Your task to perform on an android device: toggle data saver in the chrome app Image 0: 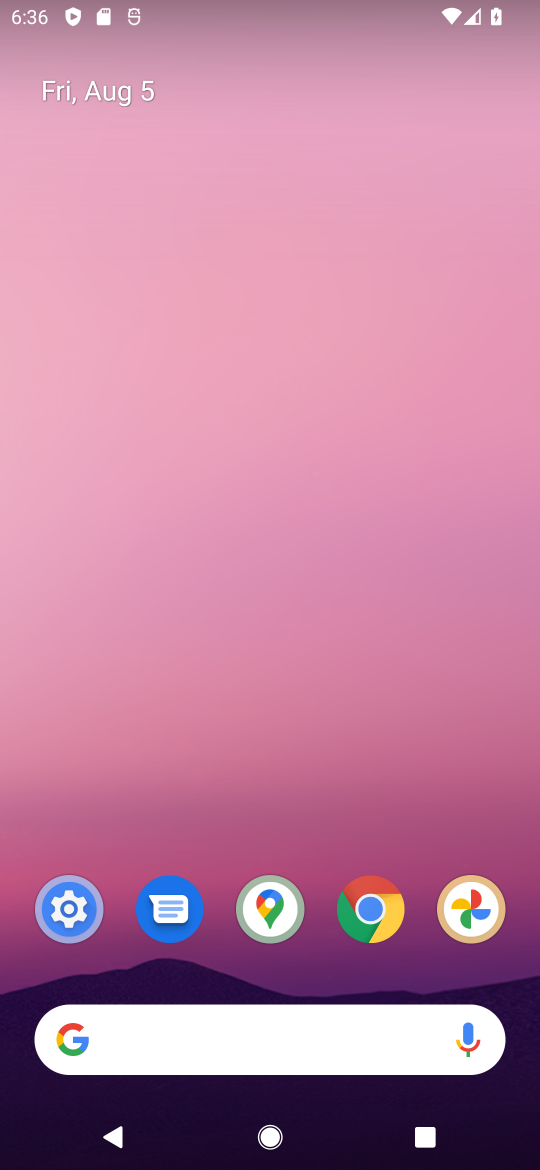
Step 0: drag from (438, 861) to (402, 127)
Your task to perform on an android device: toggle data saver in the chrome app Image 1: 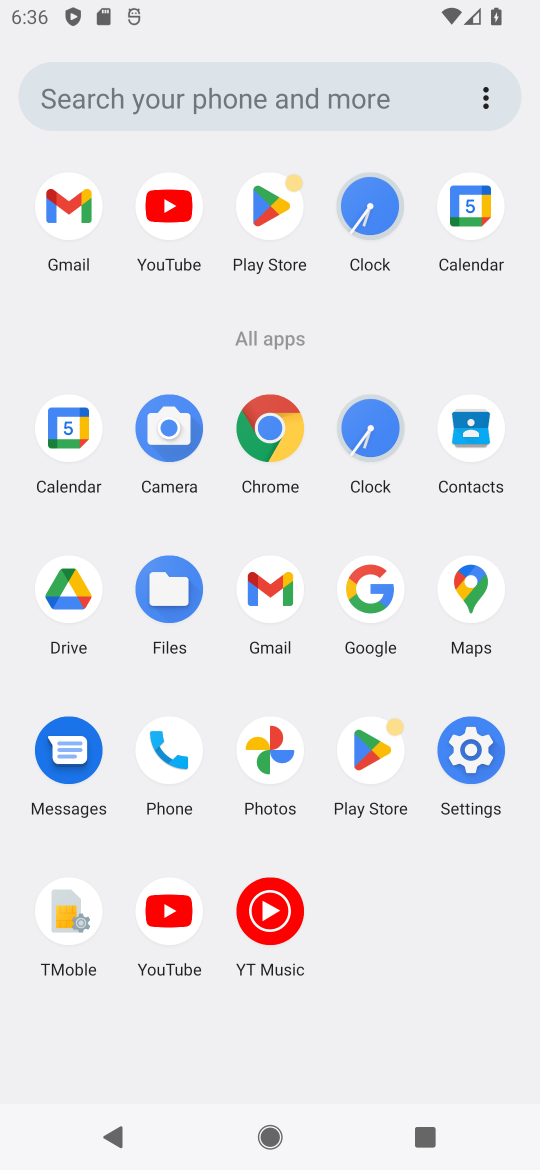
Step 1: click (276, 422)
Your task to perform on an android device: toggle data saver in the chrome app Image 2: 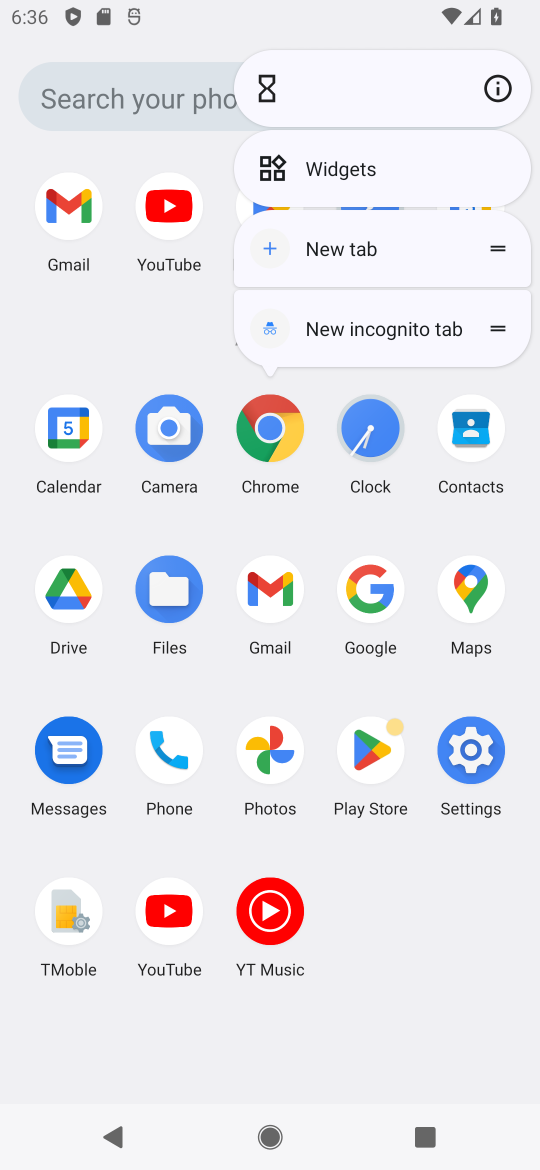
Step 2: click (266, 432)
Your task to perform on an android device: toggle data saver in the chrome app Image 3: 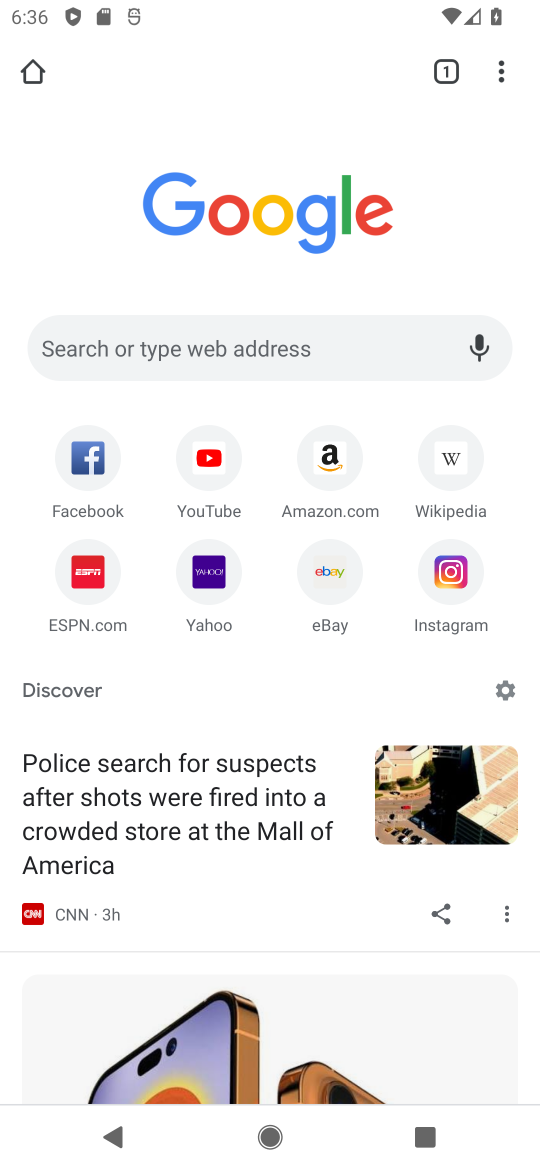
Step 3: drag from (495, 73) to (276, 646)
Your task to perform on an android device: toggle data saver in the chrome app Image 4: 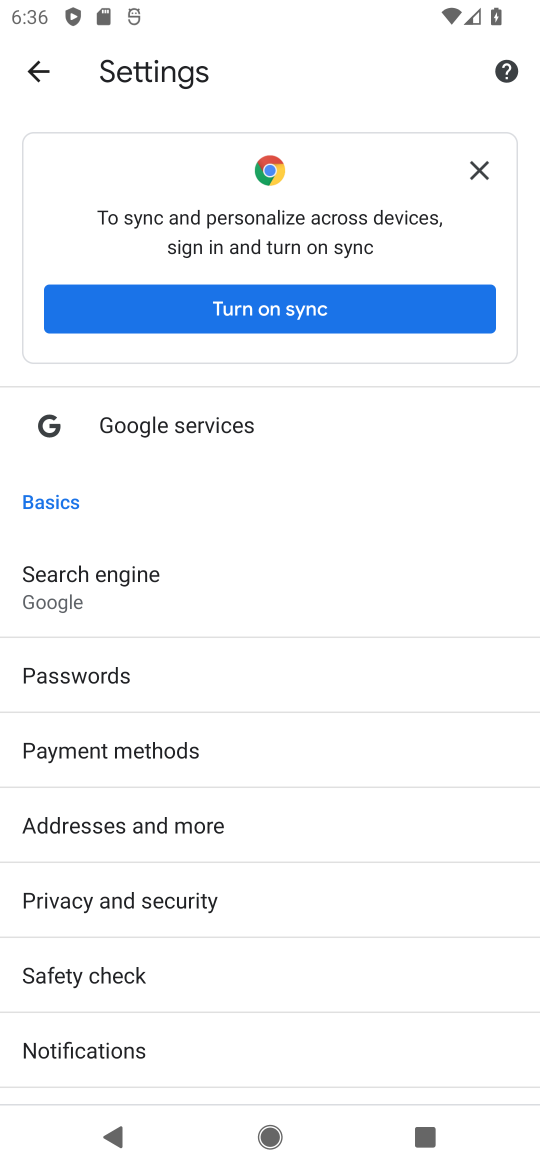
Step 4: drag from (303, 921) to (415, 340)
Your task to perform on an android device: toggle data saver in the chrome app Image 5: 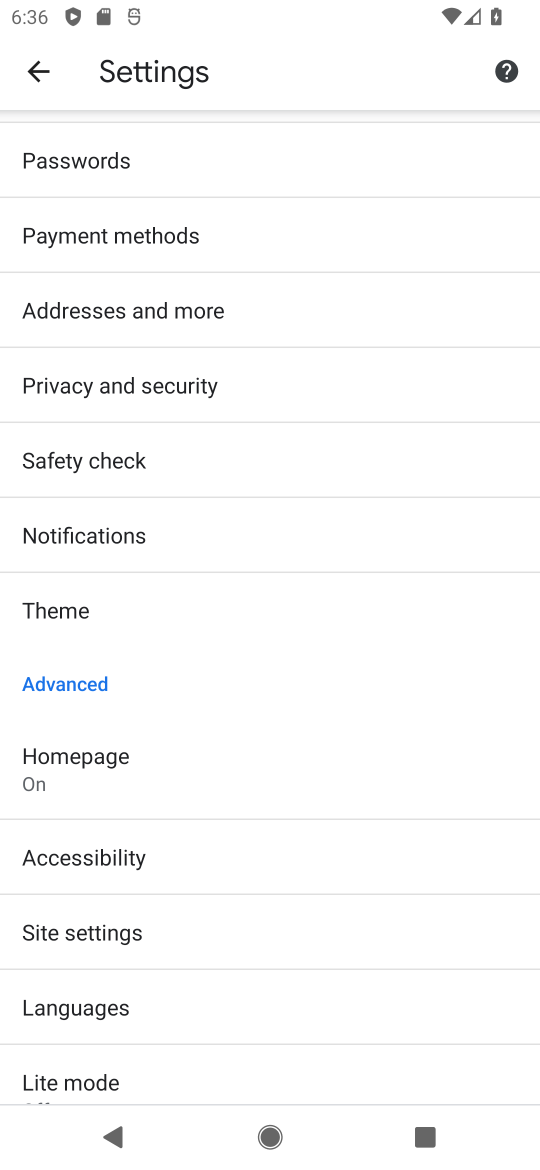
Step 5: click (108, 1071)
Your task to perform on an android device: toggle data saver in the chrome app Image 6: 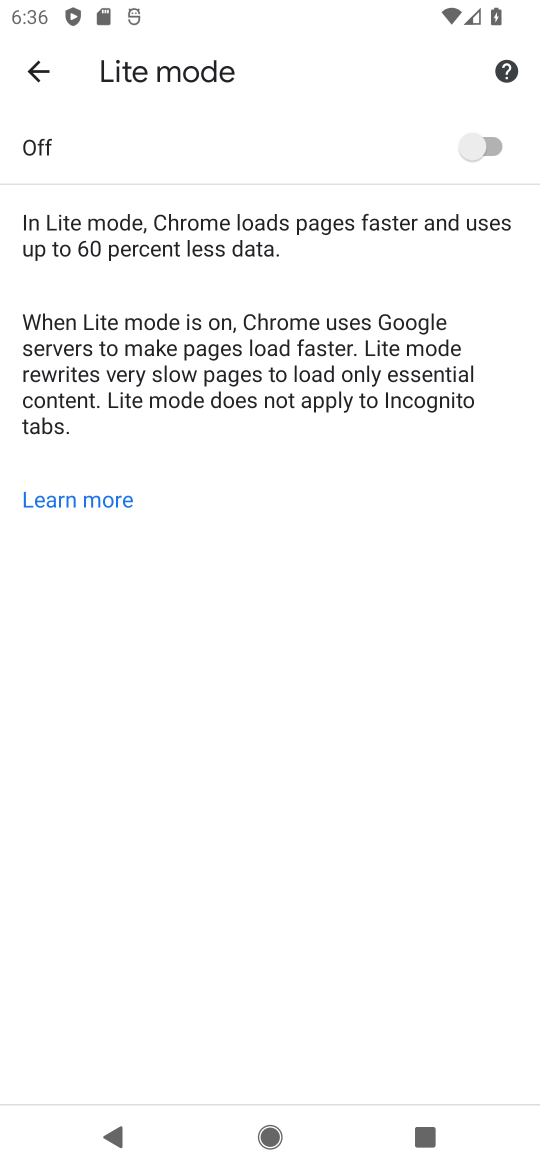
Step 6: click (475, 124)
Your task to perform on an android device: toggle data saver in the chrome app Image 7: 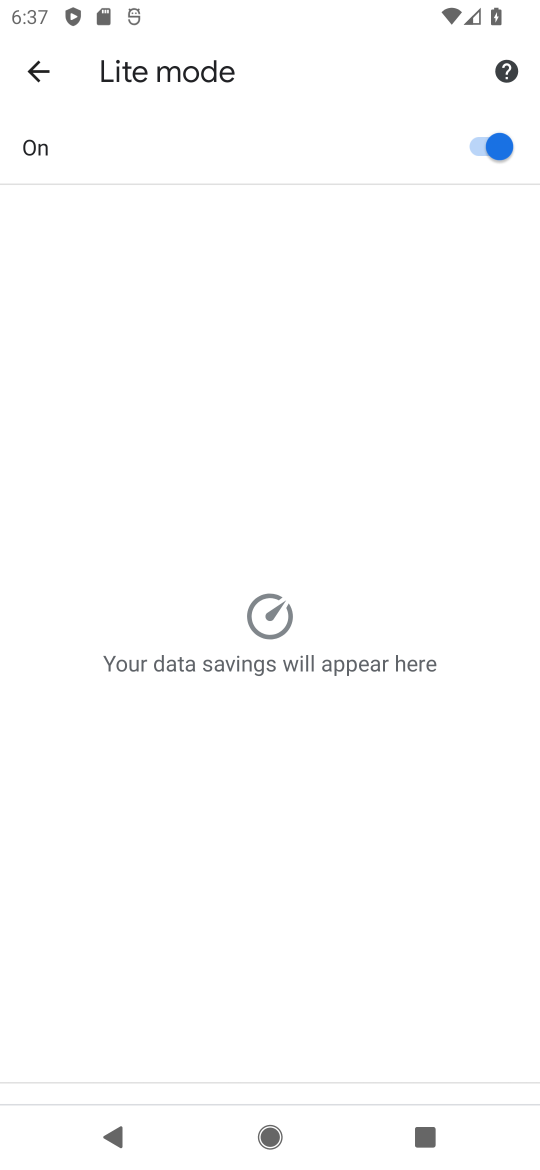
Step 7: task complete